Your task to perform on an android device: find snoozed emails in the gmail app Image 0: 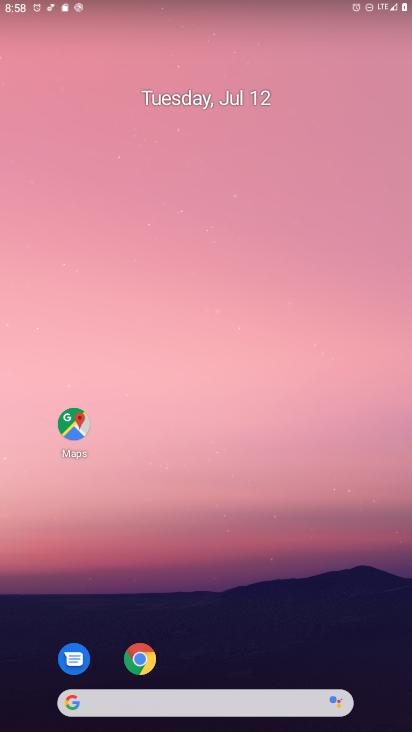
Step 0: drag from (187, 702) to (226, 85)
Your task to perform on an android device: find snoozed emails in the gmail app Image 1: 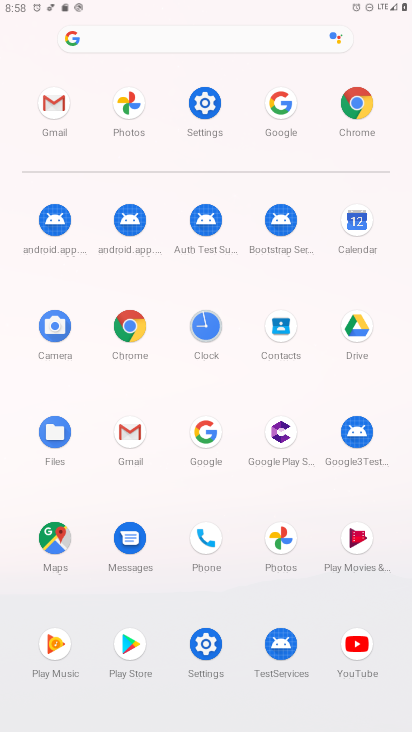
Step 1: click (55, 102)
Your task to perform on an android device: find snoozed emails in the gmail app Image 2: 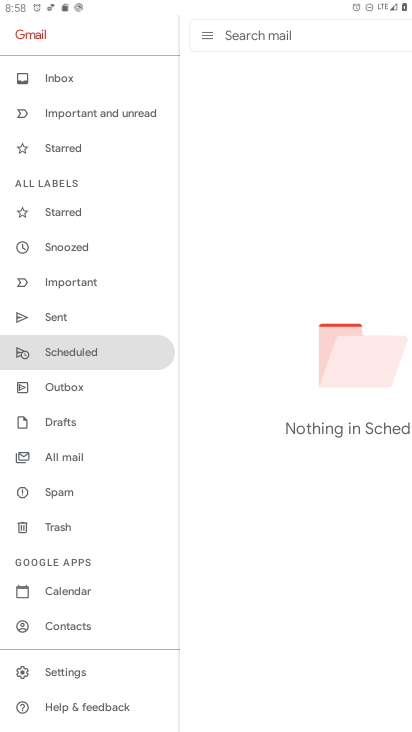
Step 2: click (74, 250)
Your task to perform on an android device: find snoozed emails in the gmail app Image 3: 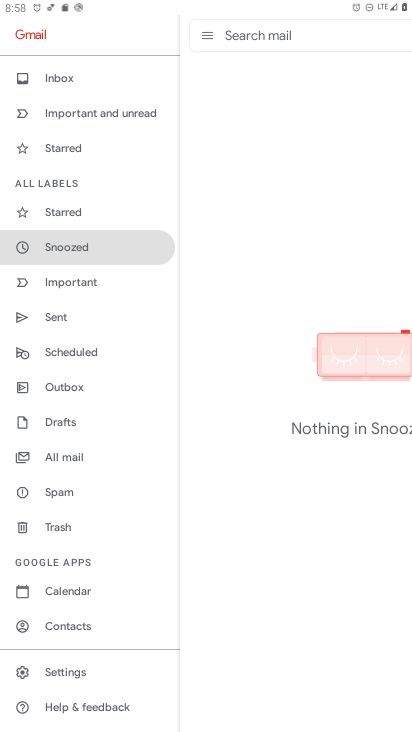
Step 3: click (67, 80)
Your task to perform on an android device: find snoozed emails in the gmail app Image 4: 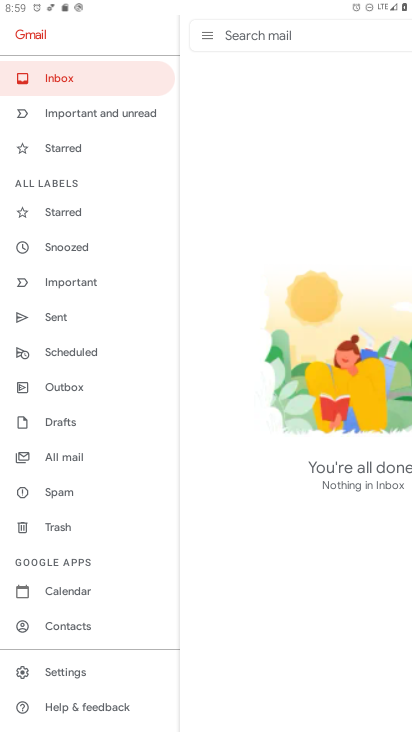
Step 4: click (76, 113)
Your task to perform on an android device: find snoozed emails in the gmail app Image 5: 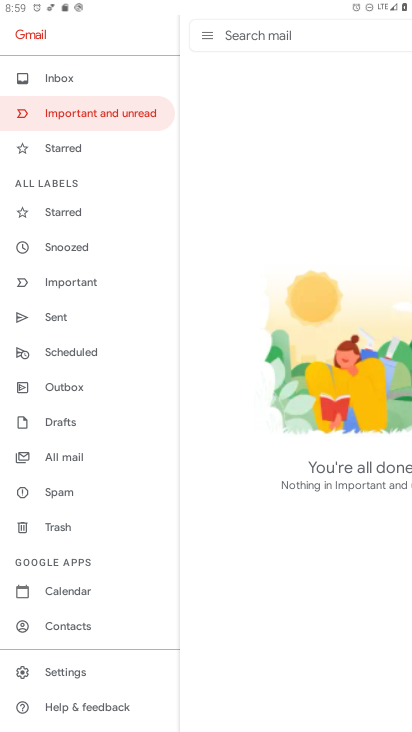
Step 5: click (68, 147)
Your task to perform on an android device: find snoozed emails in the gmail app Image 6: 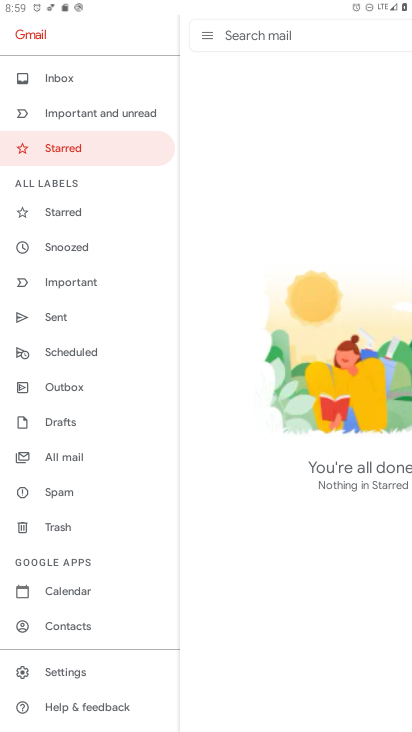
Step 6: click (61, 212)
Your task to perform on an android device: find snoozed emails in the gmail app Image 7: 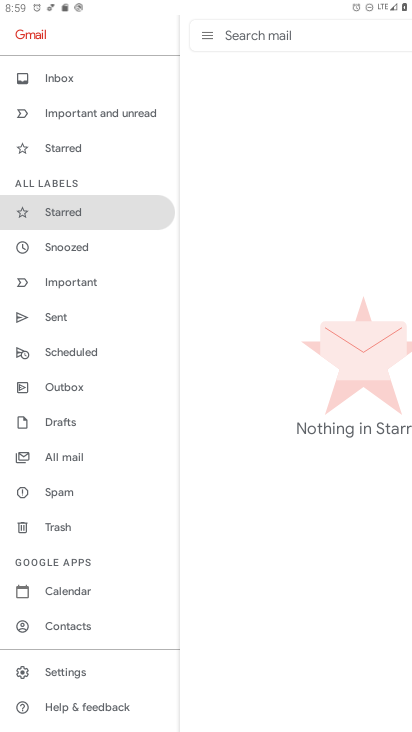
Step 7: click (80, 250)
Your task to perform on an android device: find snoozed emails in the gmail app Image 8: 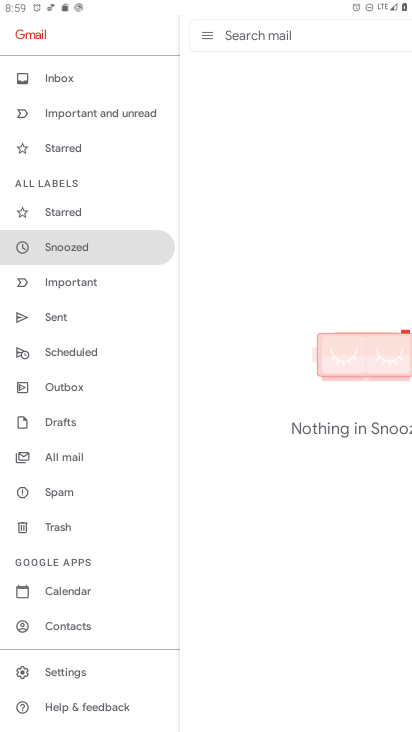
Step 8: click (78, 455)
Your task to perform on an android device: find snoozed emails in the gmail app Image 9: 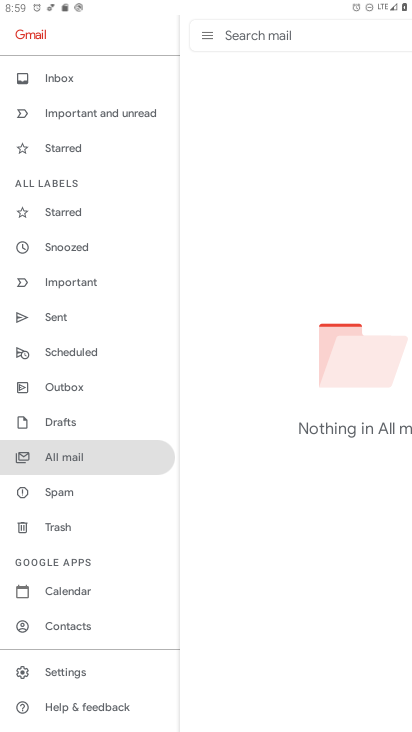
Step 9: task complete